Your task to perform on an android device: Toggle the flashlight Image 0: 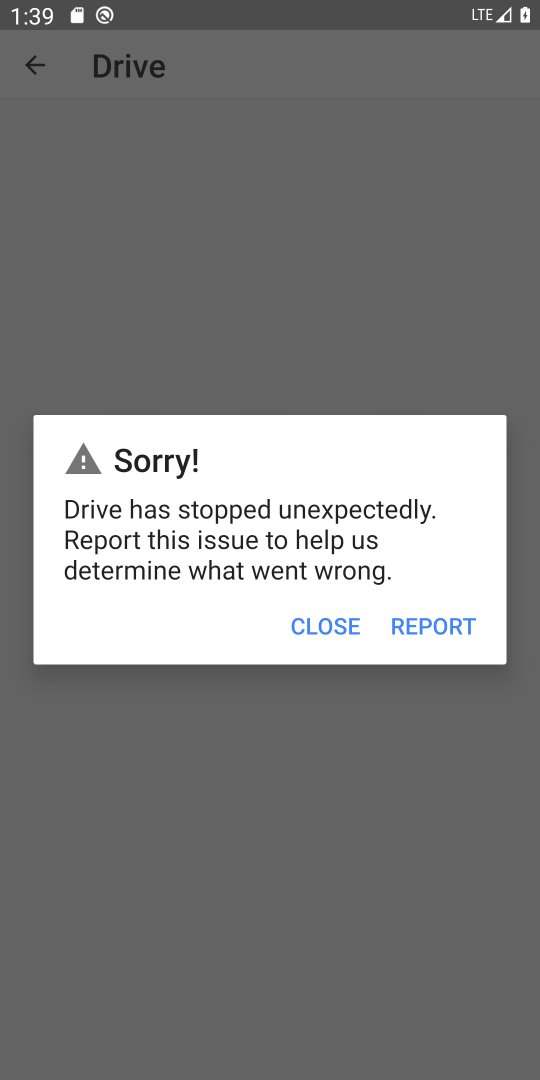
Step 0: press home button
Your task to perform on an android device: Toggle the flashlight Image 1: 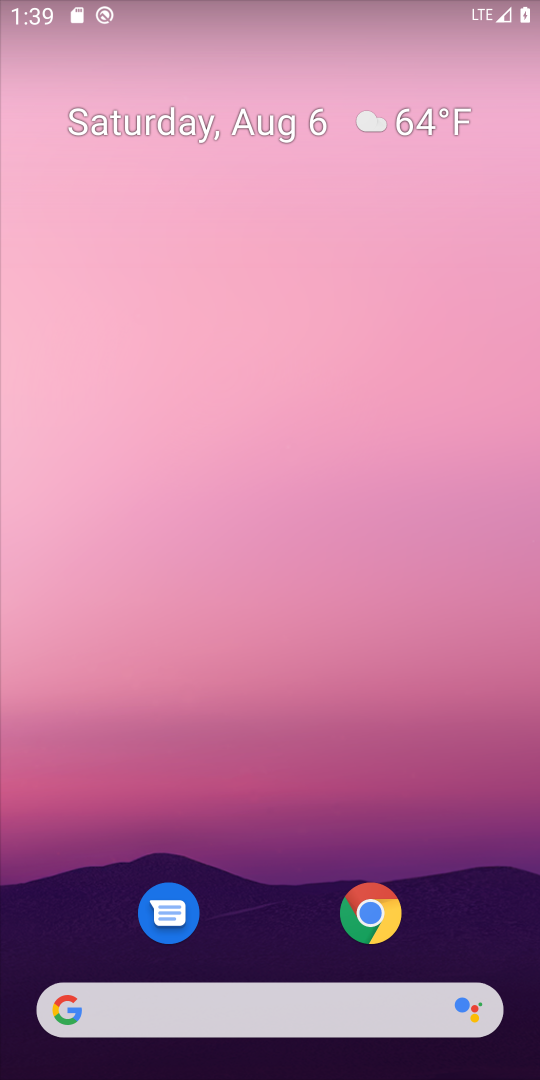
Step 1: drag from (311, 1) to (280, 548)
Your task to perform on an android device: Toggle the flashlight Image 2: 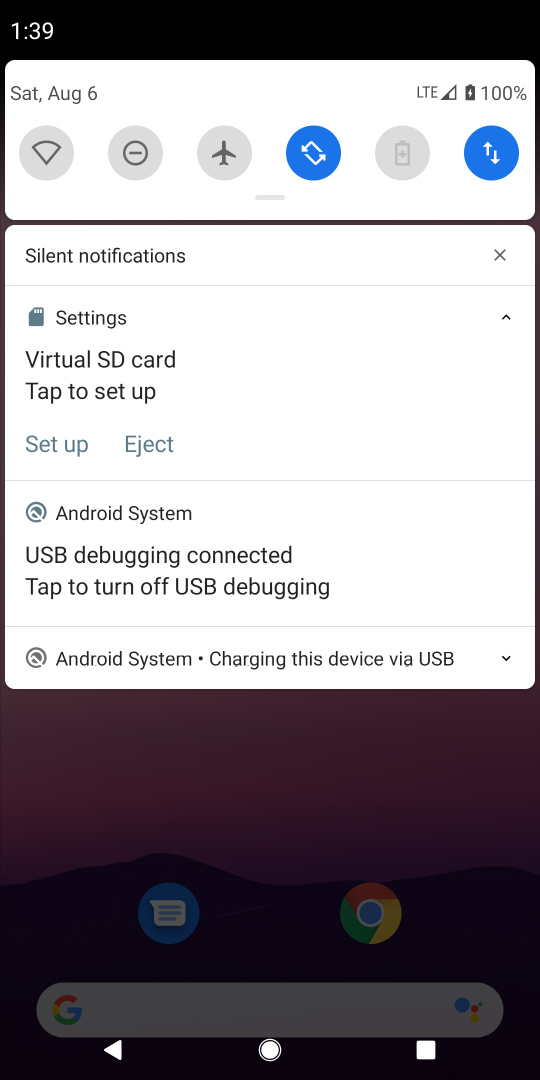
Step 2: drag from (272, 110) to (265, 489)
Your task to perform on an android device: Toggle the flashlight Image 3: 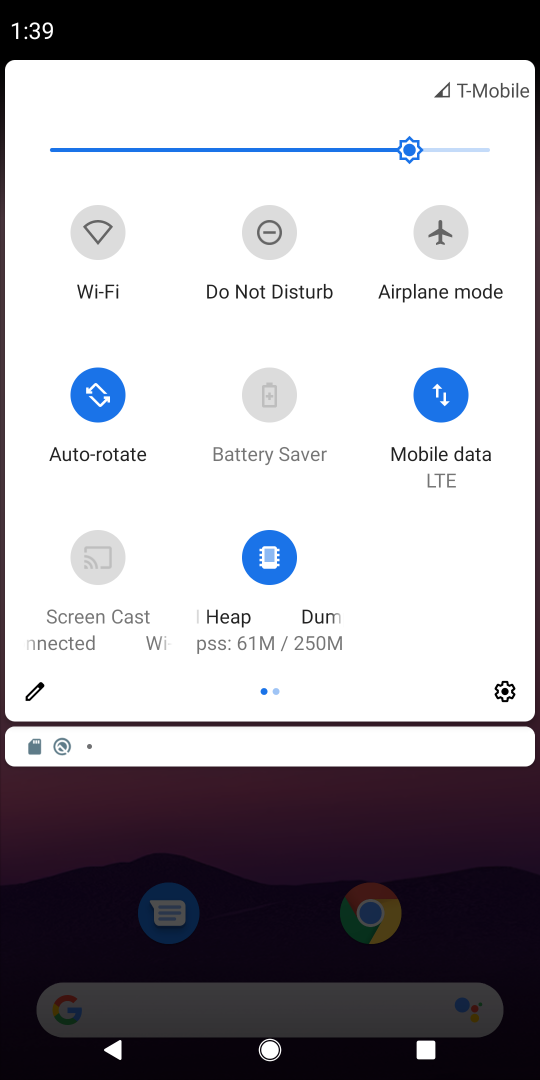
Step 3: click (24, 696)
Your task to perform on an android device: Toggle the flashlight Image 4: 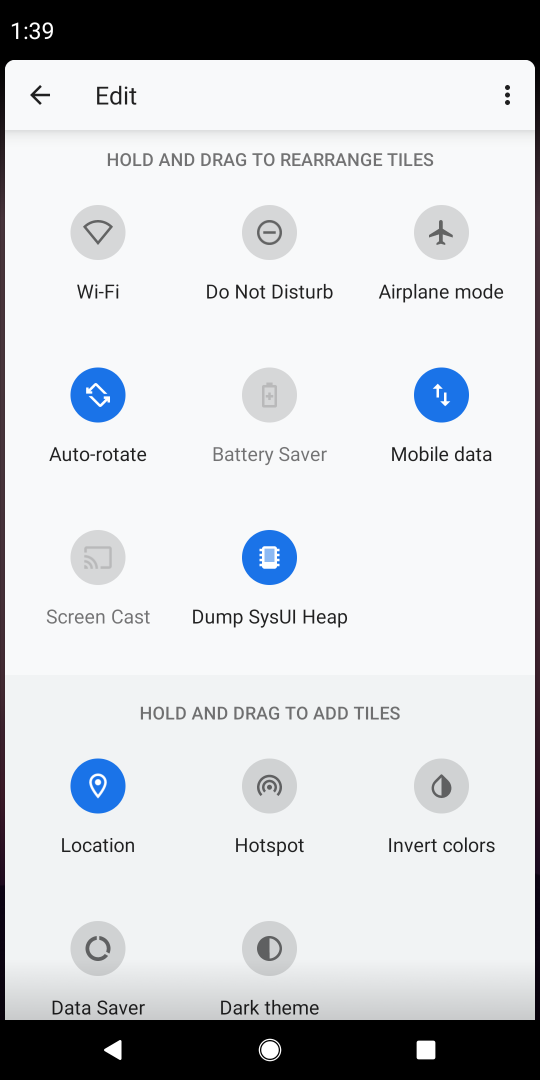
Step 4: task complete